Your task to perform on an android device: open app "Spotify" Image 0: 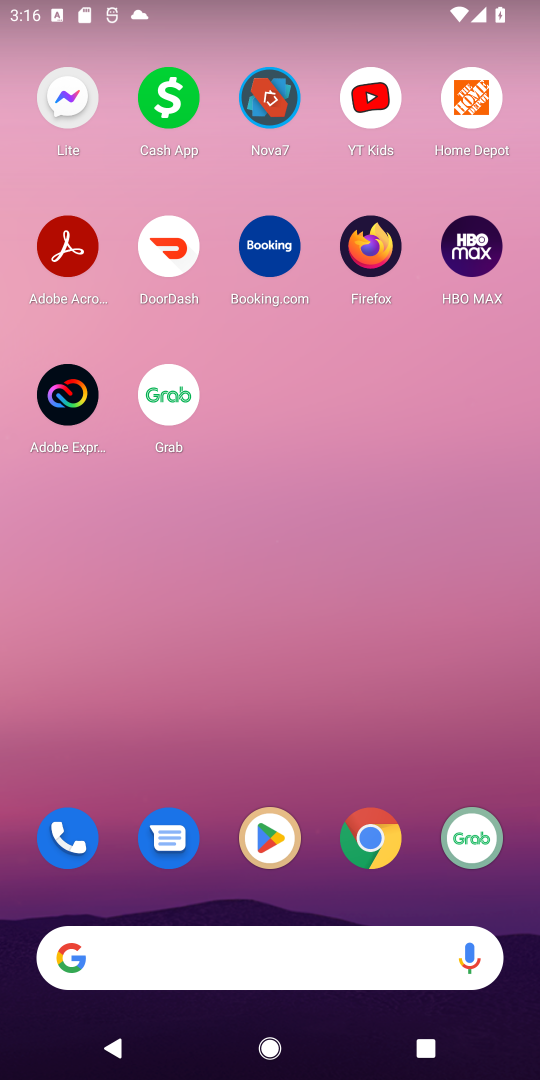
Step 0: click (252, 849)
Your task to perform on an android device: open app "Spotify" Image 1: 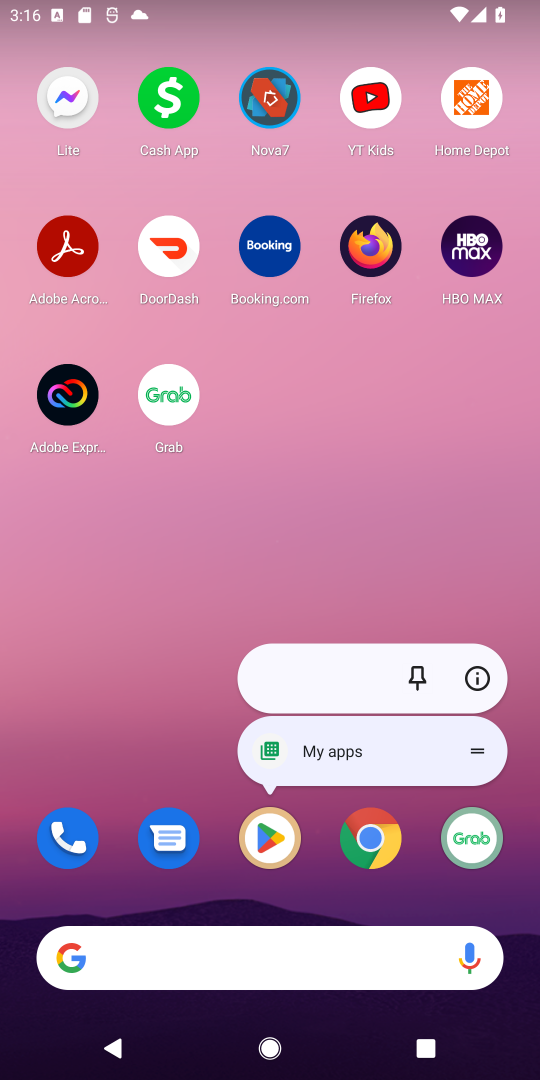
Step 1: click (257, 847)
Your task to perform on an android device: open app "Spotify" Image 2: 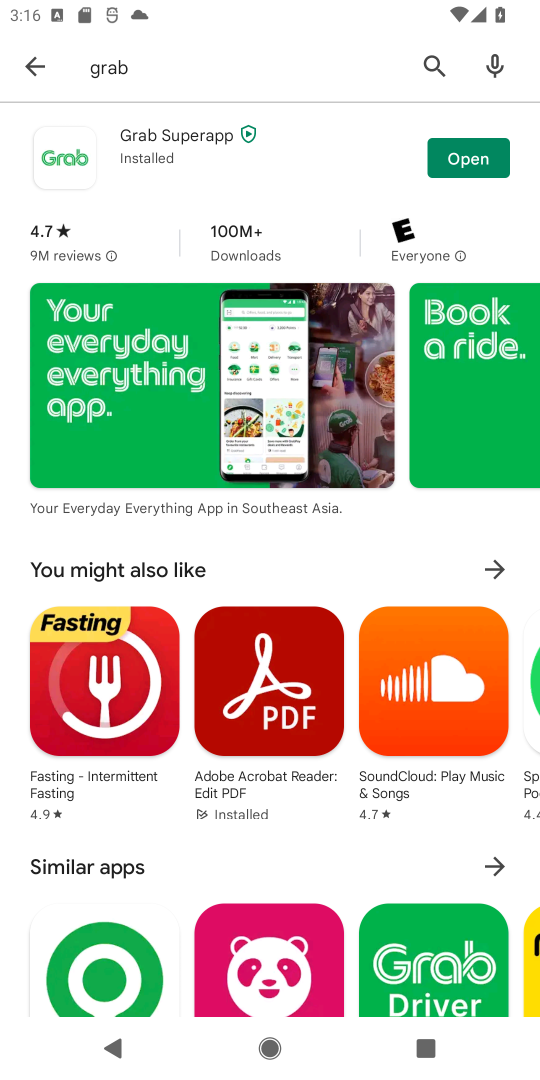
Step 2: click (45, 68)
Your task to perform on an android device: open app "Spotify" Image 3: 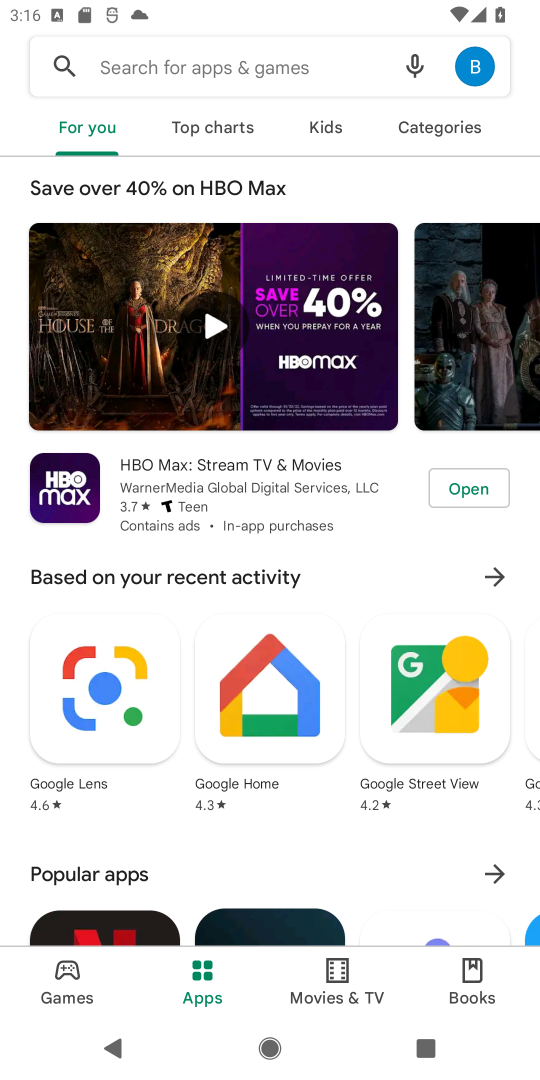
Step 3: click (212, 65)
Your task to perform on an android device: open app "Spotify" Image 4: 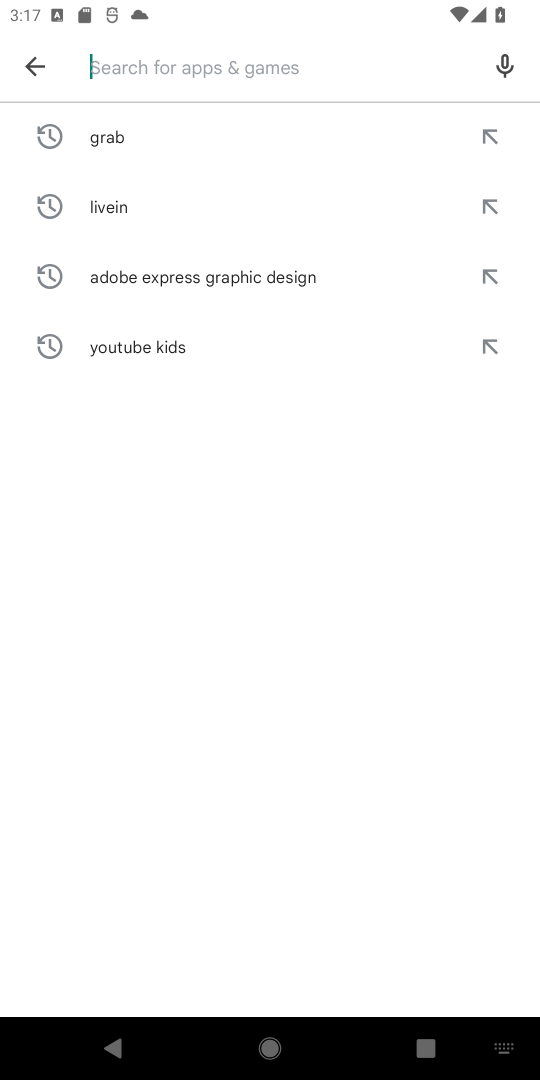
Step 4: type "Spotify"
Your task to perform on an android device: open app "Spotify" Image 5: 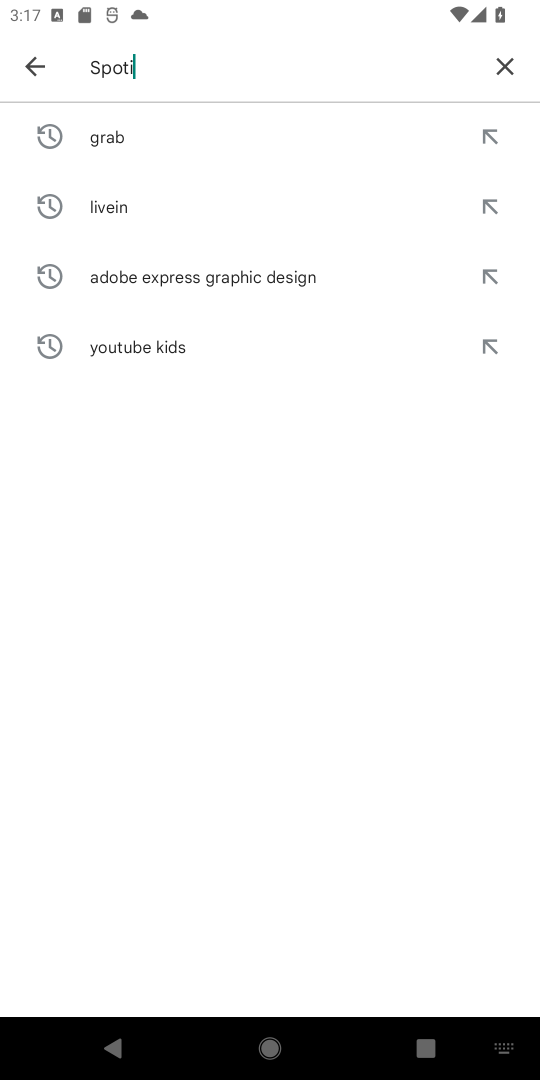
Step 5: type ""
Your task to perform on an android device: open app "Spotify" Image 6: 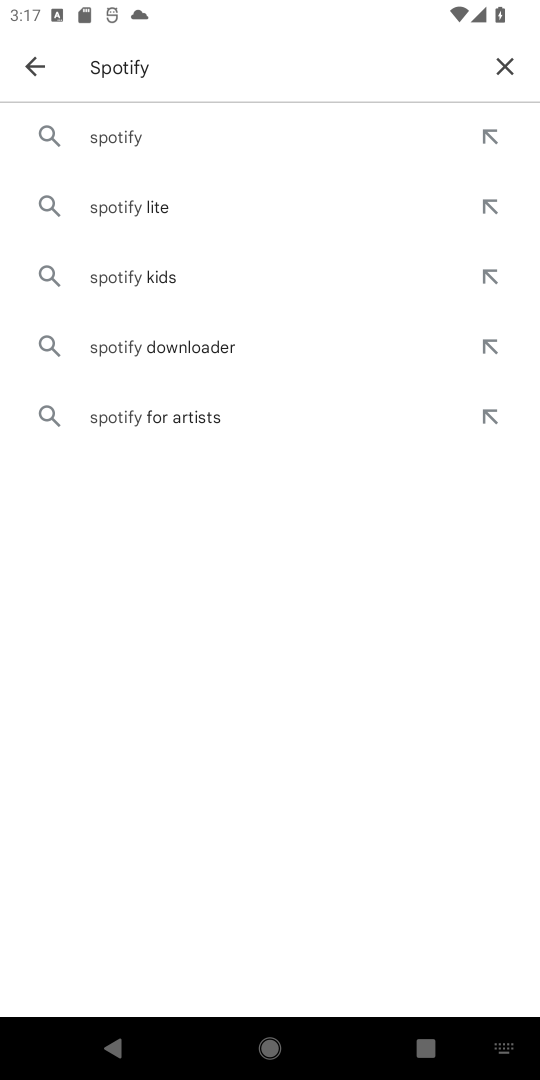
Step 6: click (146, 137)
Your task to perform on an android device: open app "Spotify" Image 7: 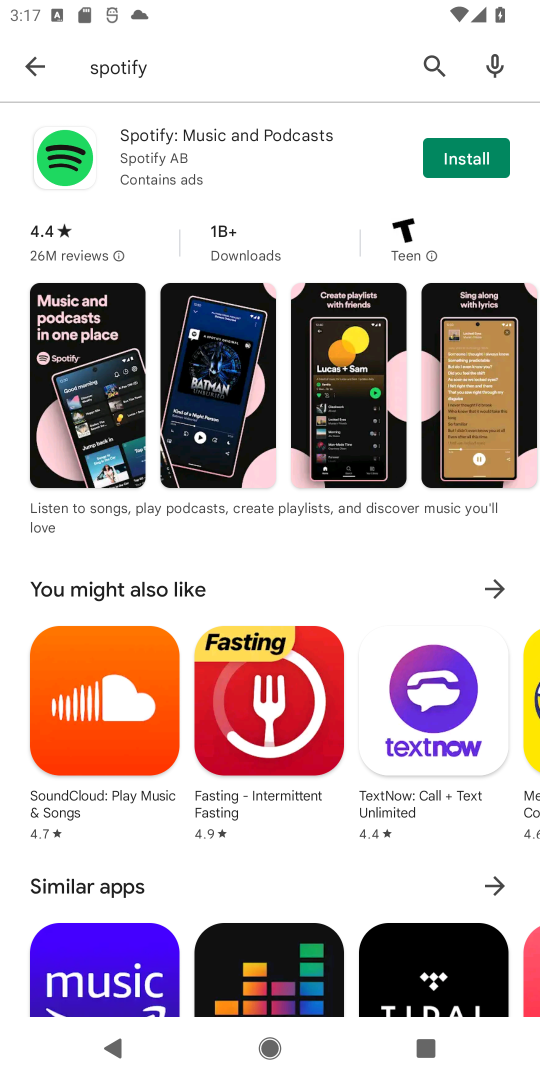
Step 7: task complete